Your task to perform on an android device: Search for asus rog on walmart, select the first entry, add it to the cart, then select checkout. Image 0: 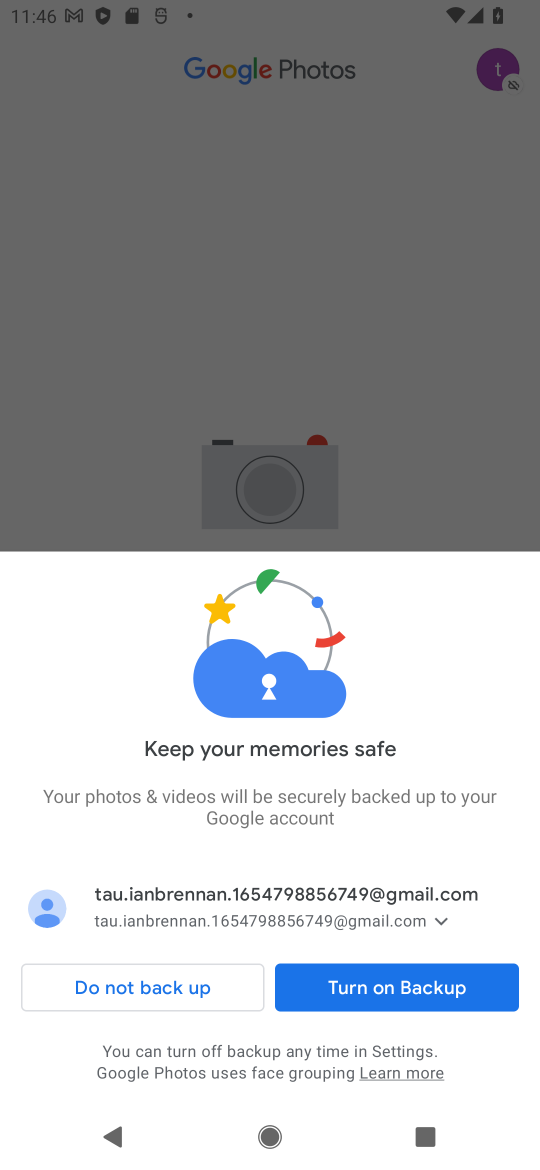
Step 0: press home button
Your task to perform on an android device: Search for asus rog on walmart, select the first entry, add it to the cart, then select checkout. Image 1: 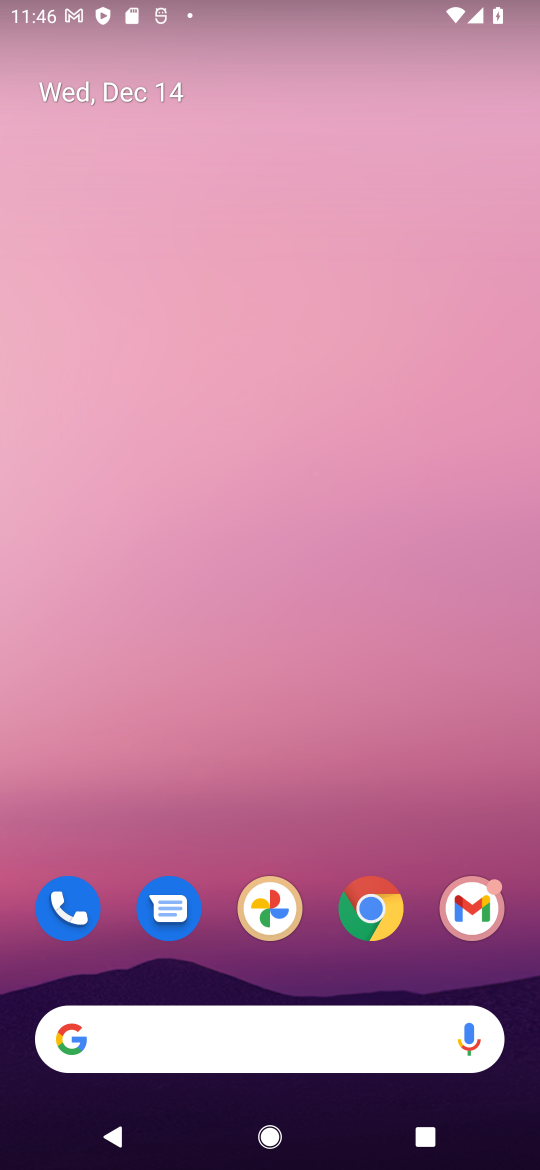
Step 1: click (375, 917)
Your task to perform on an android device: Search for asus rog on walmart, select the first entry, add it to the cart, then select checkout. Image 2: 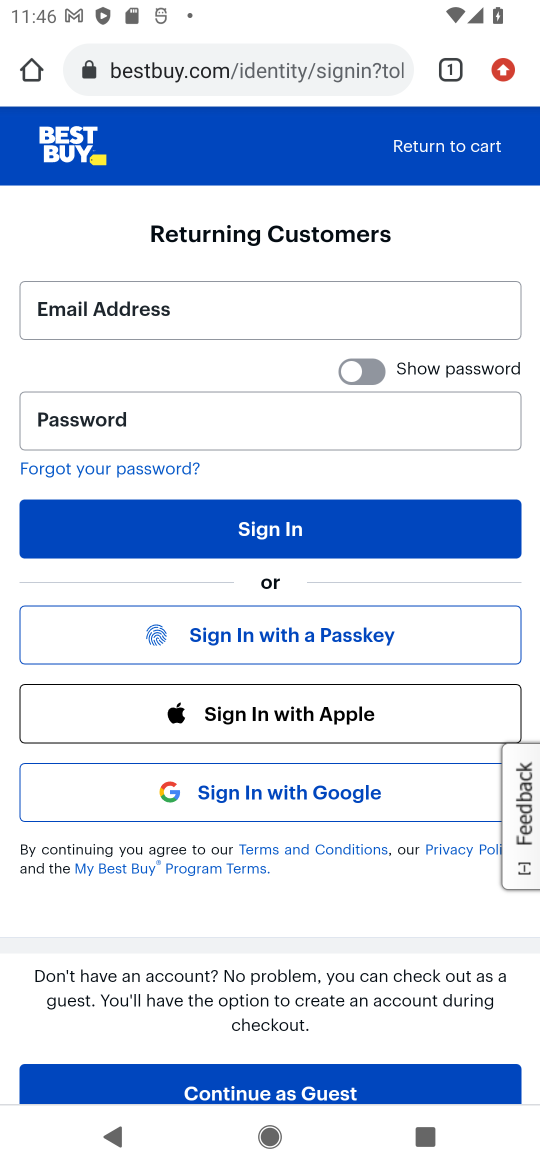
Step 2: click (204, 79)
Your task to perform on an android device: Search for asus rog on walmart, select the first entry, add it to the cart, then select checkout. Image 3: 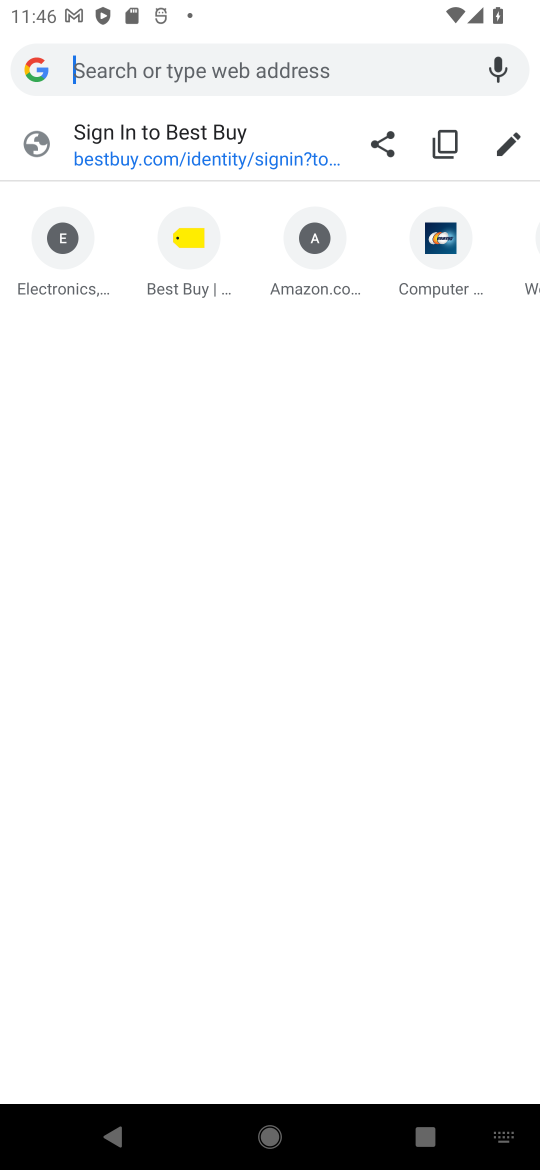
Step 3: type "walmart.com"
Your task to perform on an android device: Search for asus rog on walmart, select the first entry, add it to the cart, then select checkout. Image 4: 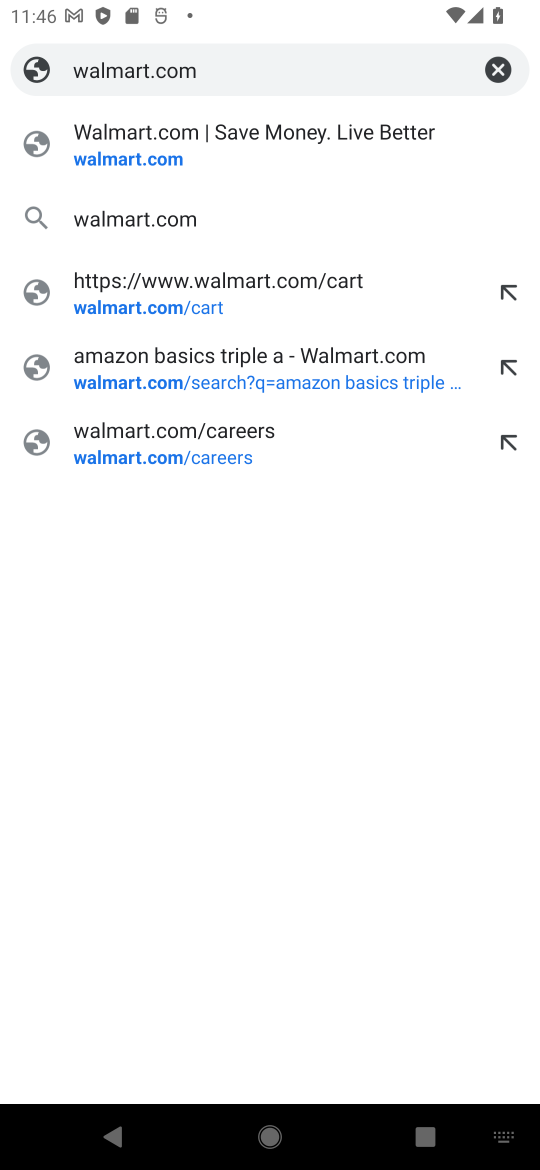
Step 4: click (136, 152)
Your task to perform on an android device: Search for asus rog on walmart, select the first entry, add it to the cart, then select checkout. Image 5: 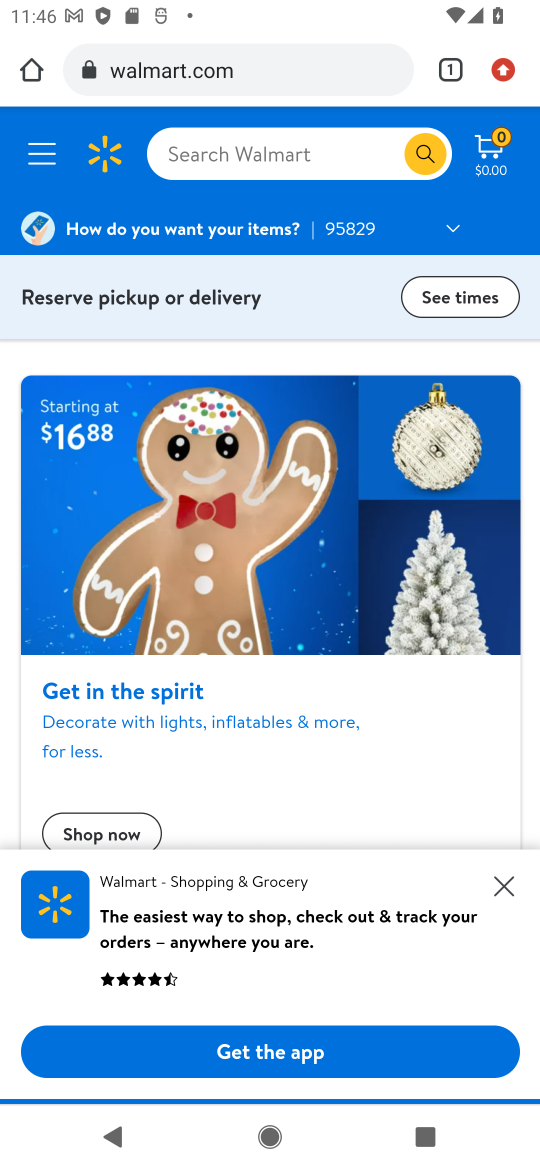
Step 5: click (209, 153)
Your task to perform on an android device: Search for asus rog on walmart, select the first entry, add it to the cart, then select checkout. Image 6: 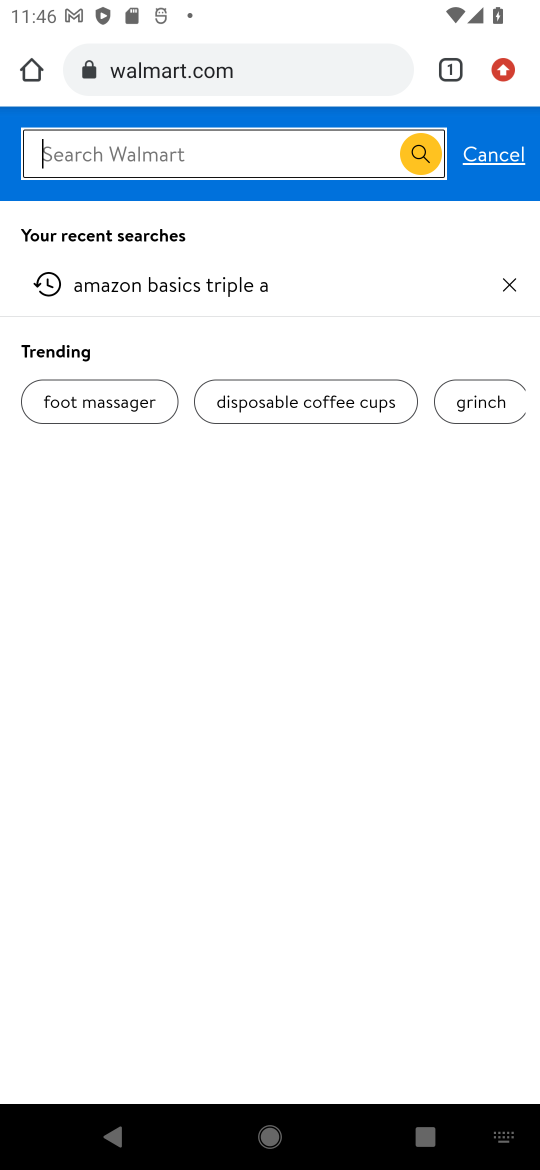
Step 6: type " asus rog "
Your task to perform on an android device: Search for asus rog on walmart, select the first entry, add it to the cart, then select checkout. Image 7: 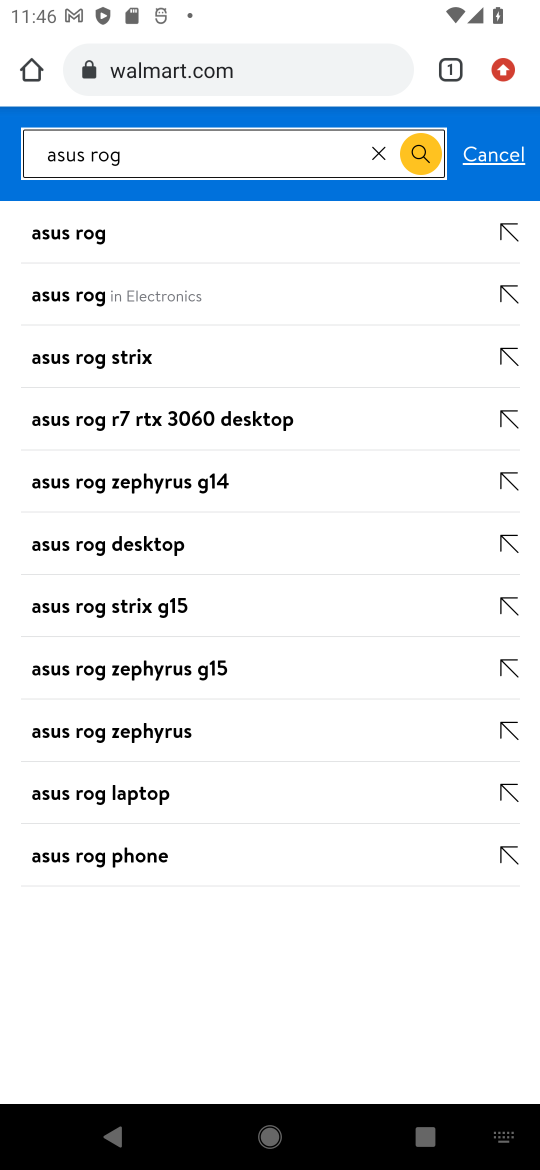
Step 7: click (56, 243)
Your task to perform on an android device: Search for asus rog on walmart, select the first entry, add it to the cart, then select checkout. Image 8: 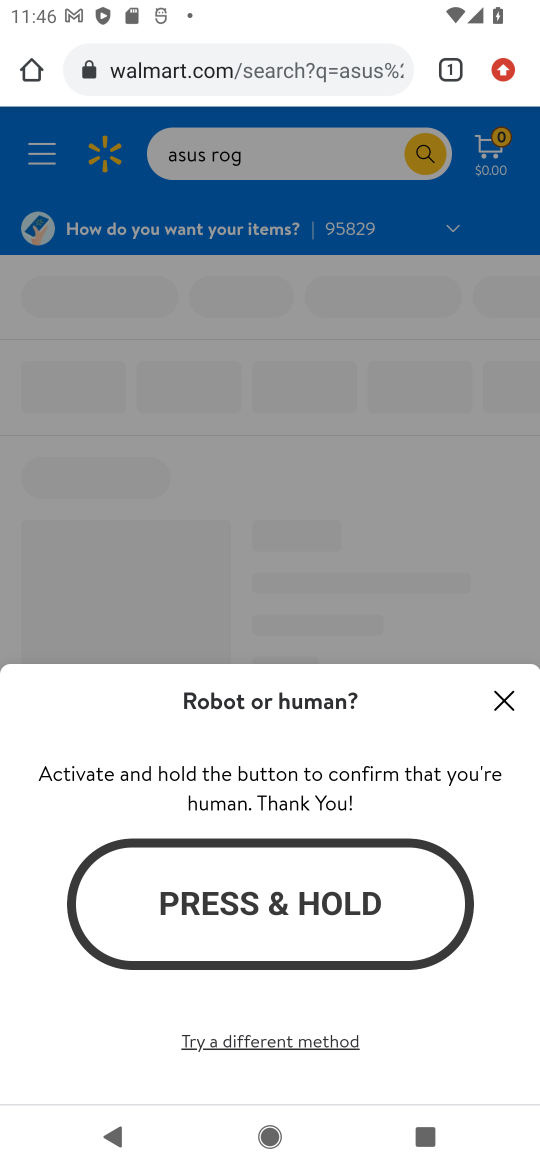
Step 8: click (256, 898)
Your task to perform on an android device: Search for asus rog on walmart, select the first entry, add it to the cart, then select checkout. Image 9: 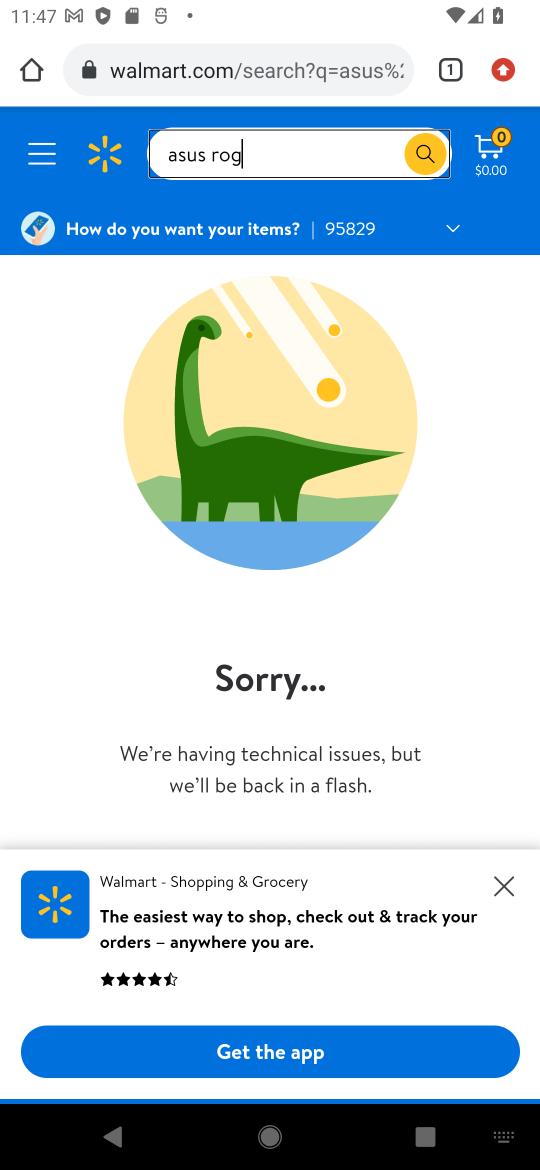
Step 9: click (504, 881)
Your task to perform on an android device: Search for asus rog on walmart, select the first entry, add it to the cart, then select checkout. Image 10: 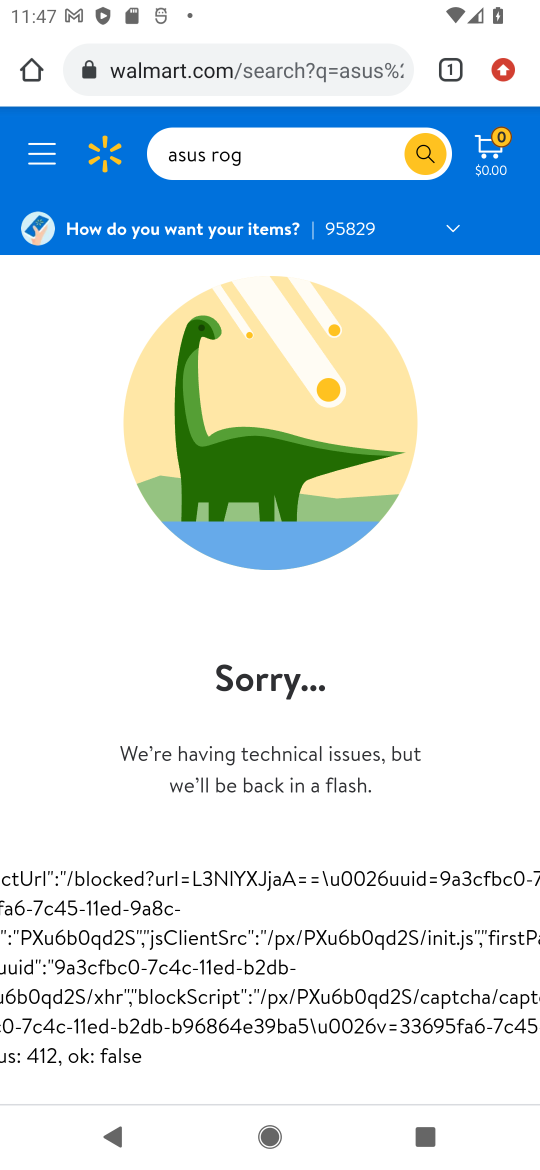
Step 10: click (429, 159)
Your task to perform on an android device: Search for asus rog on walmart, select the first entry, add it to the cart, then select checkout. Image 11: 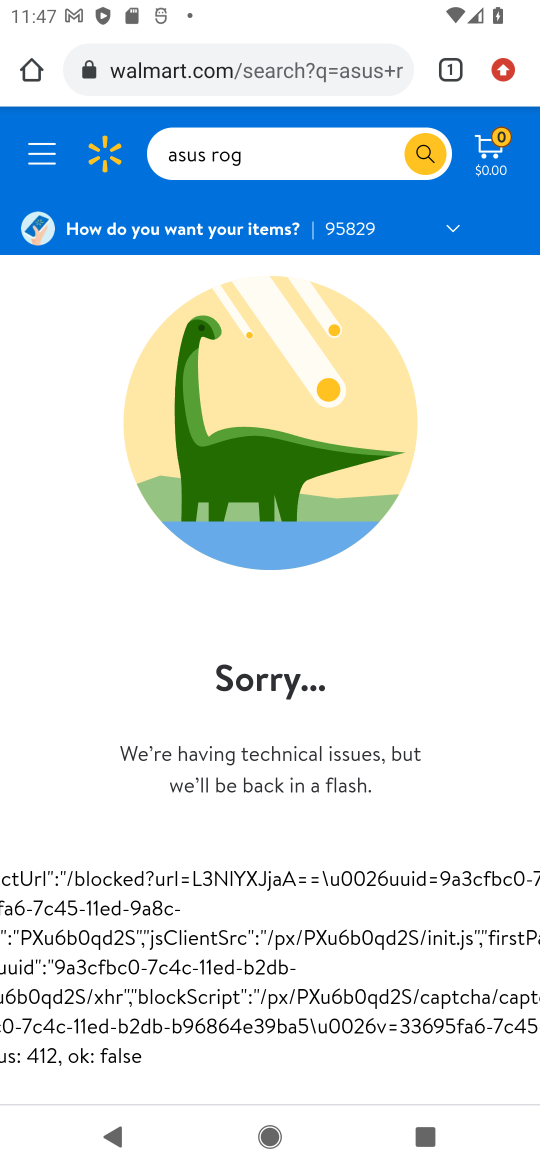
Step 11: click (424, 161)
Your task to perform on an android device: Search for asus rog on walmart, select the first entry, add it to the cart, then select checkout. Image 12: 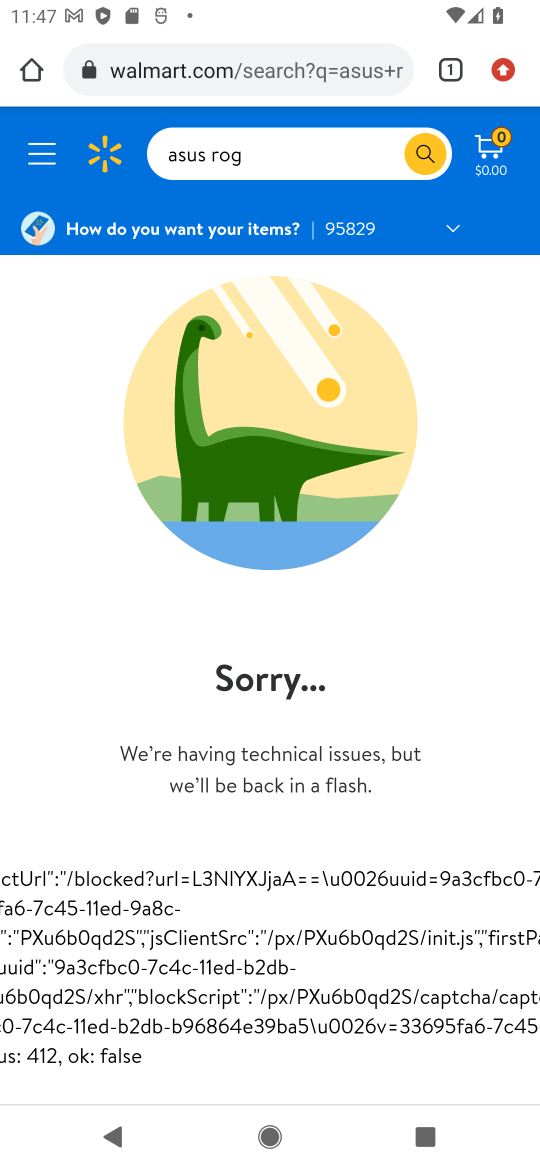
Step 12: task complete